Your task to perform on an android device: change timer sound Image 0: 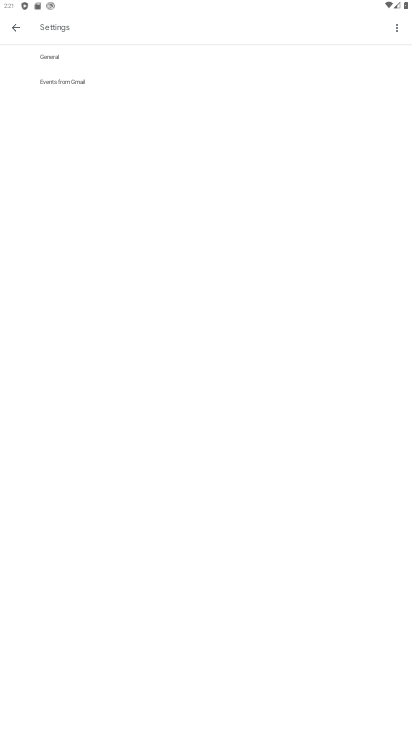
Step 0: press home button
Your task to perform on an android device: change timer sound Image 1: 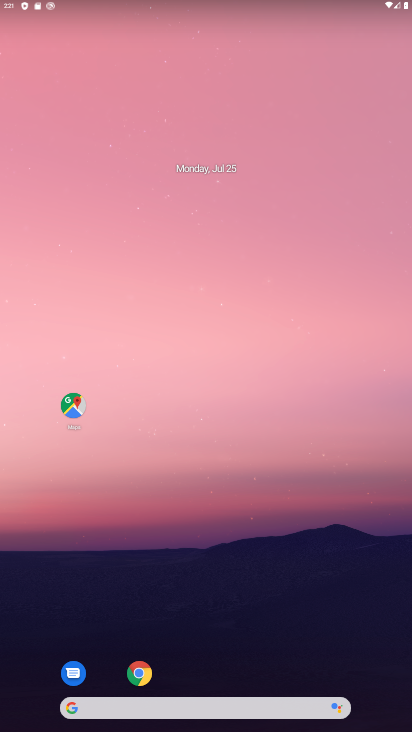
Step 1: drag from (290, 670) to (309, 15)
Your task to perform on an android device: change timer sound Image 2: 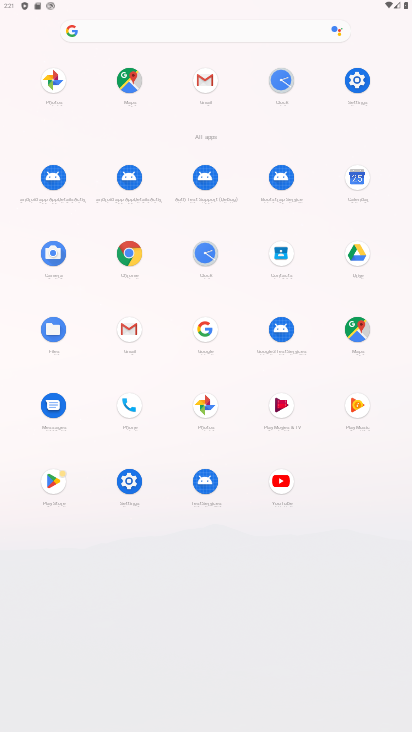
Step 2: click (275, 88)
Your task to perform on an android device: change timer sound Image 3: 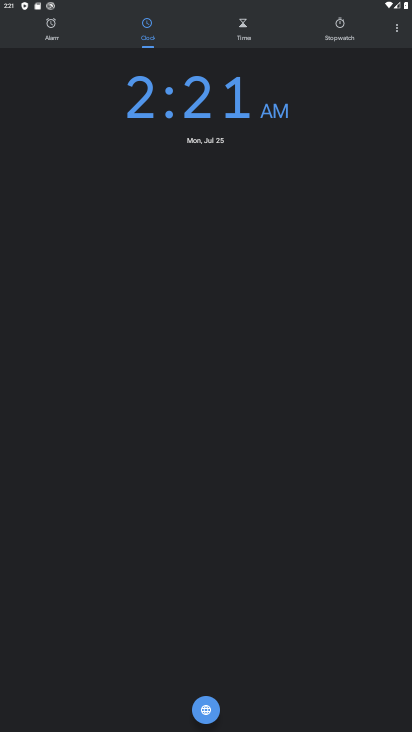
Step 3: click (401, 34)
Your task to perform on an android device: change timer sound Image 4: 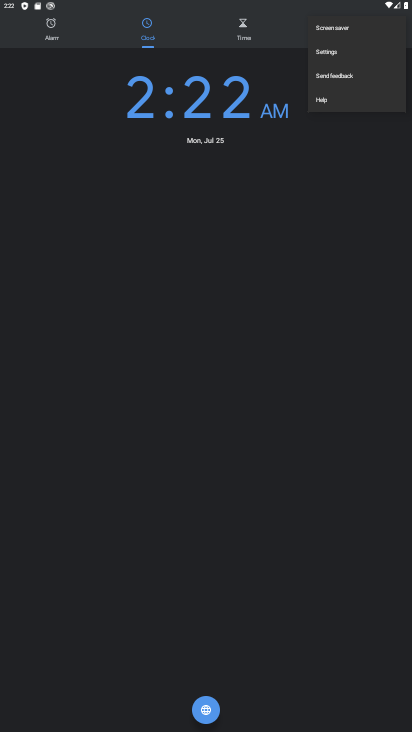
Step 4: click (366, 55)
Your task to perform on an android device: change timer sound Image 5: 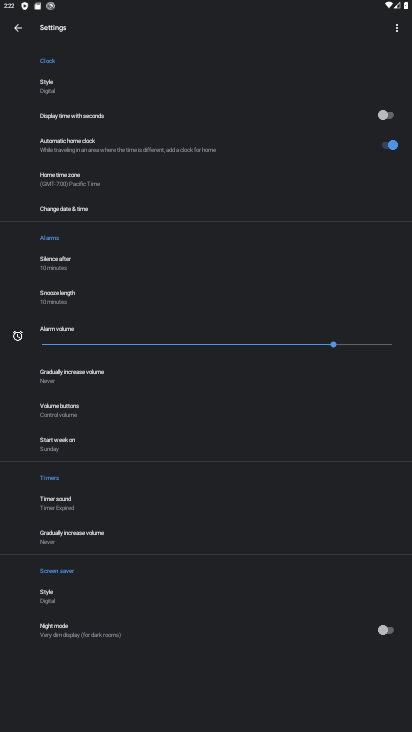
Step 5: click (148, 507)
Your task to perform on an android device: change timer sound Image 6: 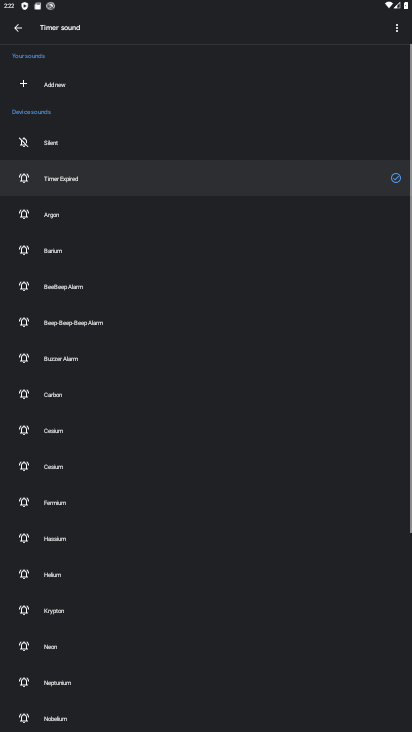
Step 6: click (99, 267)
Your task to perform on an android device: change timer sound Image 7: 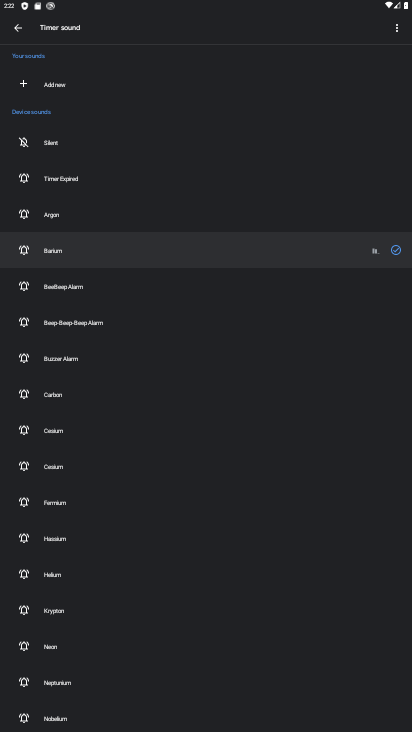
Step 7: task complete